Your task to perform on an android device: Go to CNN.com Image 0: 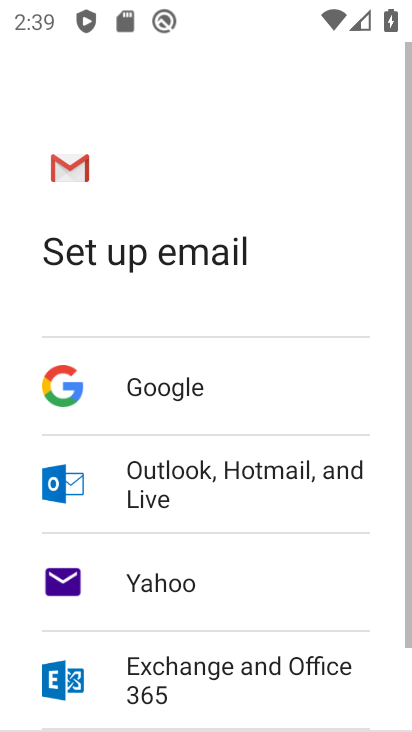
Step 0: press home button
Your task to perform on an android device: Go to CNN.com Image 1: 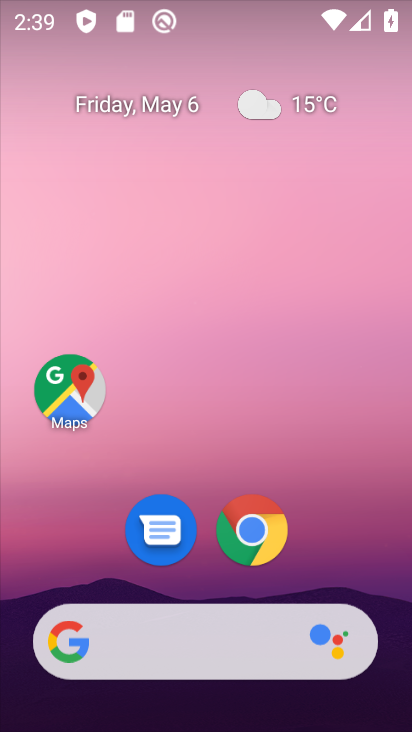
Step 1: drag from (359, 478) to (317, 73)
Your task to perform on an android device: Go to CNN.com Image 2: 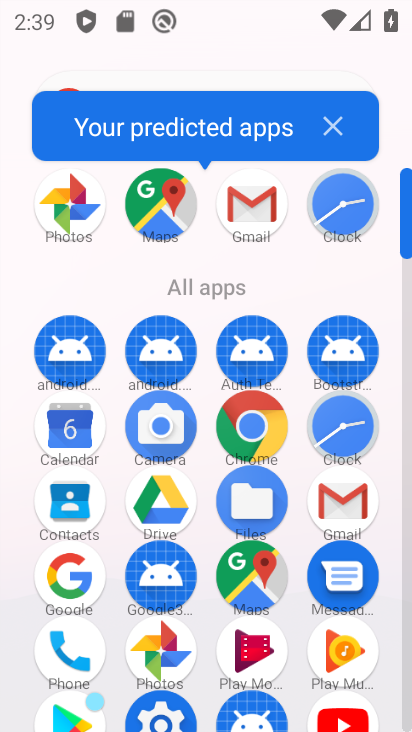
Step 2: click (242, 418)
Your task to perform on an android device: Go to CNN.com Image 3: 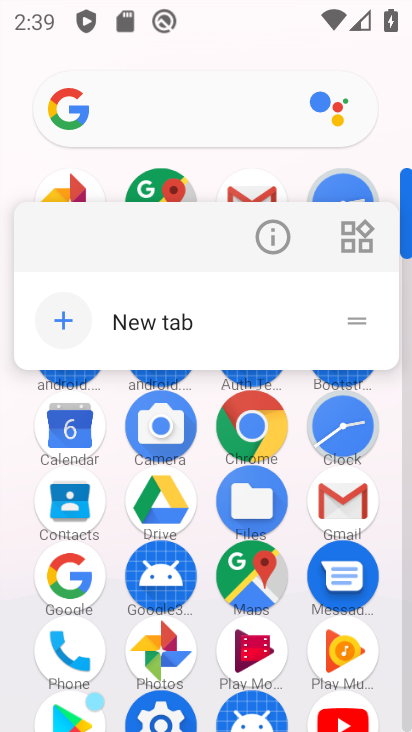
Step 3: click (253, 410)
Your task to perform on an android device: Go to CNN.com Image 4: 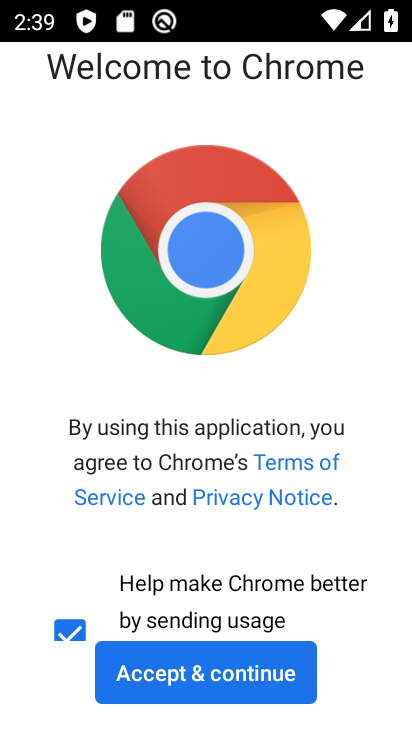
Step 4: click (236, 681)
Your task to perform on an android device: Go to CNN.com Image 5: 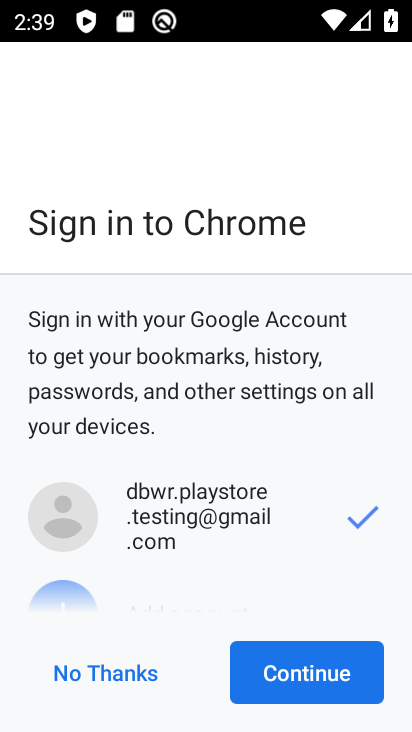
Step 5: click (313, 662)
Your task to perform on an android device: Go to CNN.com Image 6: 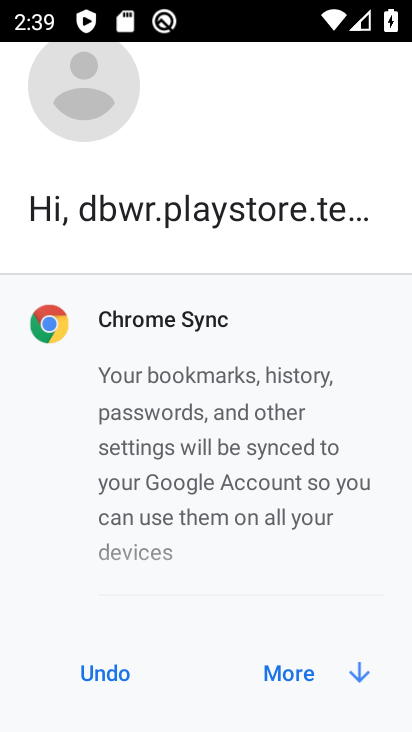
Step 6: click (284, 666)
Your task to perform on an android device: Go to CNN.com Image 7: 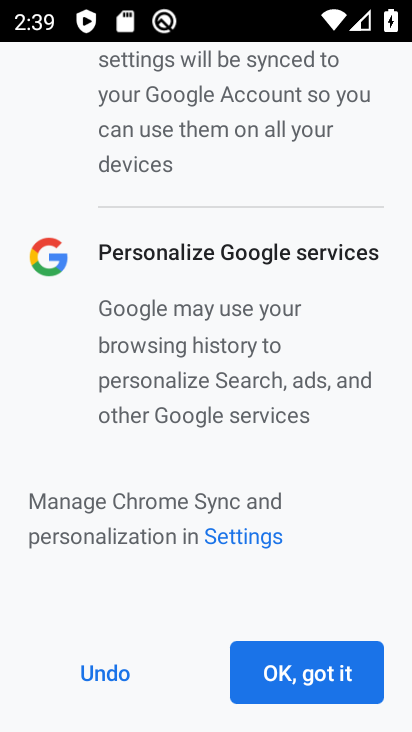
Step 7: click (293, 691)
Your task to perform on an android device: Go to CNN.com Image 8: 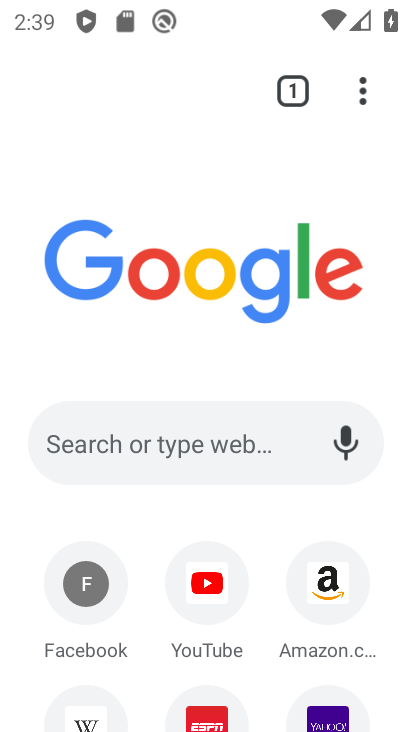
Step 8: drag from (373, 588) to (372, 192)
Your task to perform on an android device: Go to CNN.com Image 9: 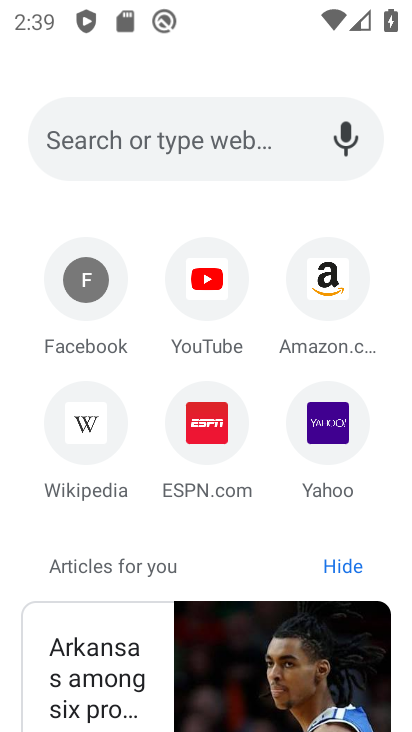
Step 9: click (216, 146)
Your task to perform on an android device: Go to CNN.com Image 10: 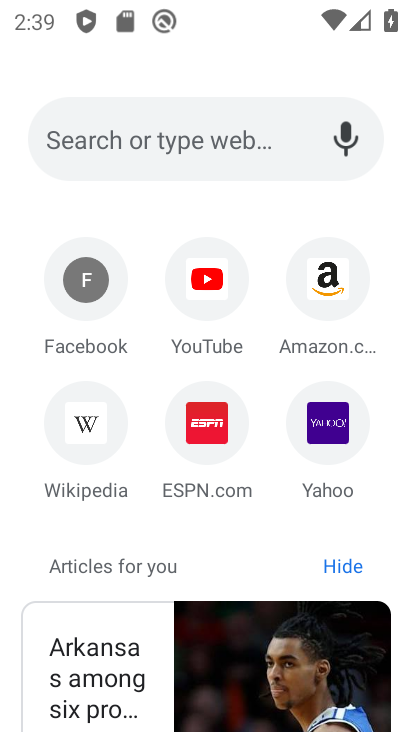
Step 10: click (149, 137)
Your task to perform on an android device: Go to CNN.com Image 11: 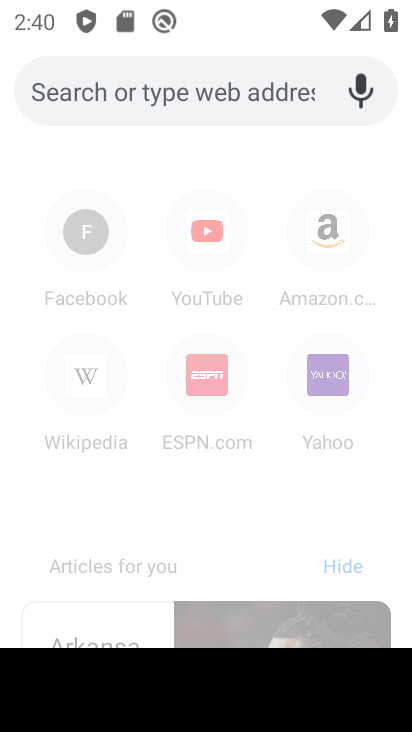
Step 11: type "cnn.com"
Your task to perform on an android device: Go to CNN.com Image 12: 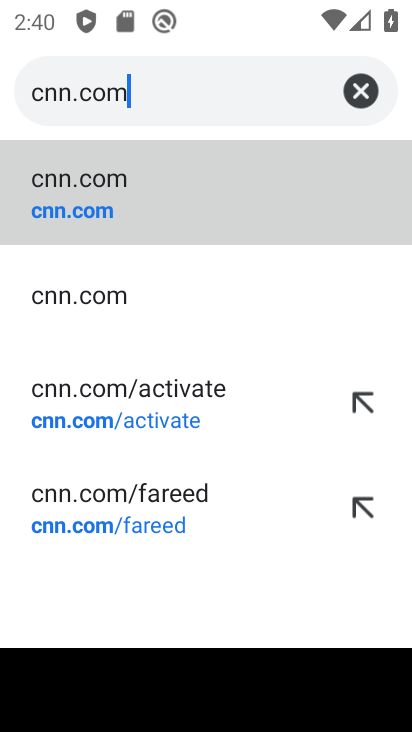
Step 12: click (95, 181)
Your task to perform on an android device: Go to CNN.com Image 13: 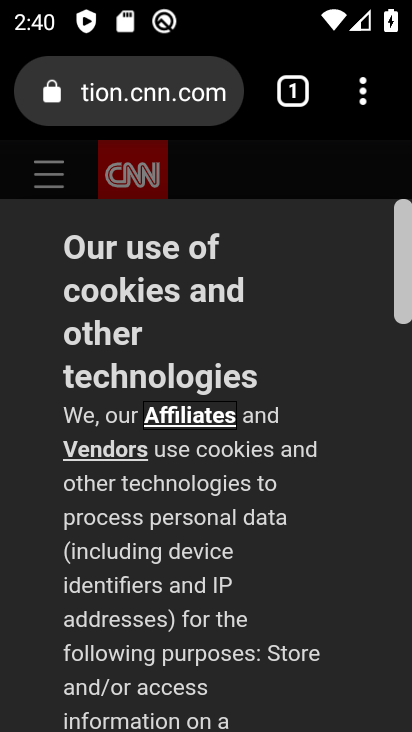
Step 13: task complete